Your task to perform on an android device: change notifications settings Image 0: 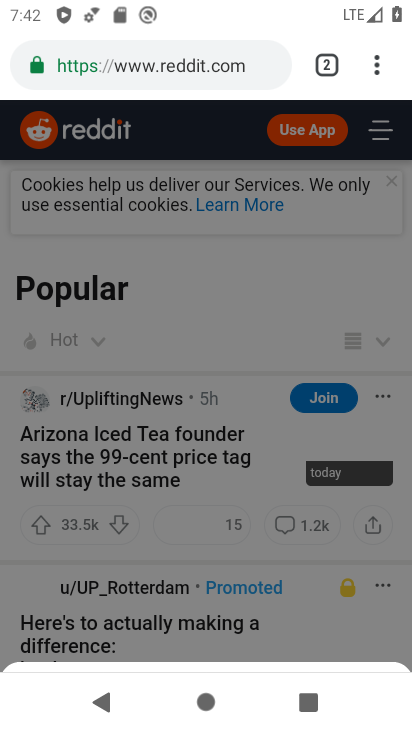
Step 0: press home button
Your task to perform on an android device: change notifications settings Image 1: 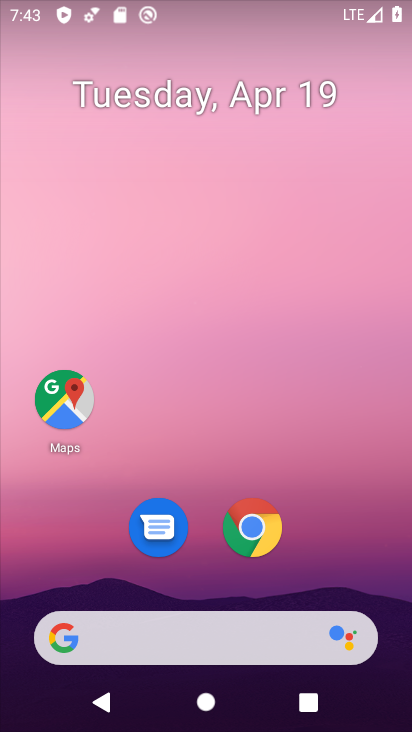
Step 1: drag from (343, 502) to (344, 70)
Your task to perform on an android device: change notifications settings Image 2: 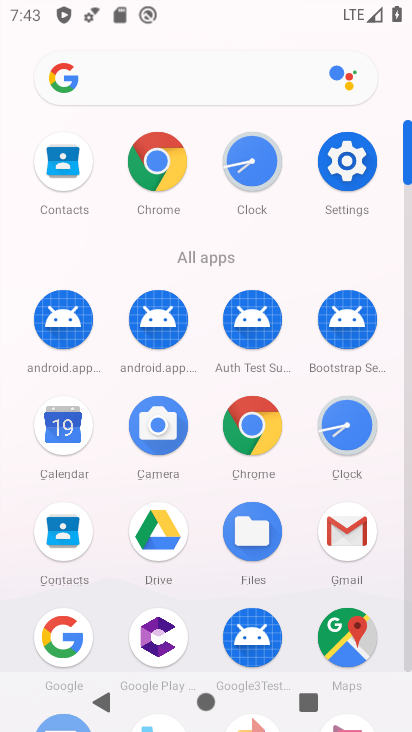
Step 2: click (346, 168)
Your task to perform on an android device: change notifications settings Image 3: 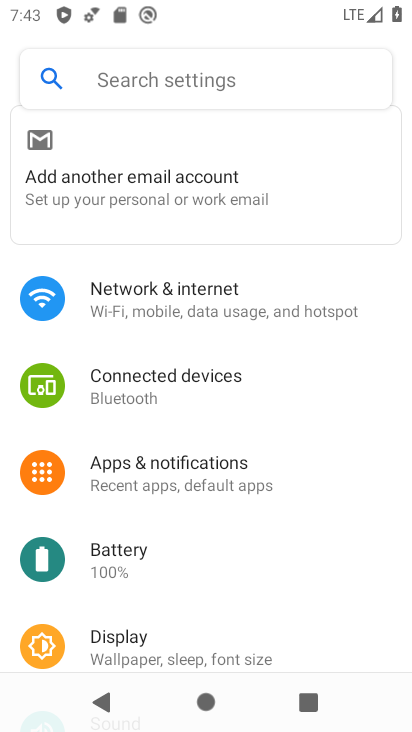
Step 3: click (197, 470)
Your task to perform on an android device: change notifications settings Image 4: 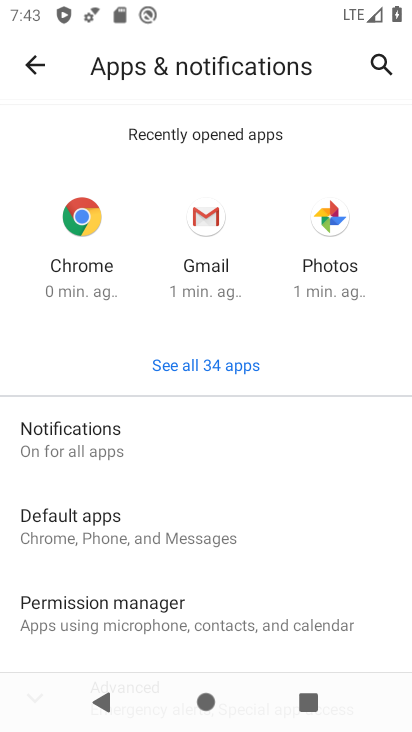
Step 4: click (122, 449)
Your task to perform on an android device: change notifications settings Image 5: 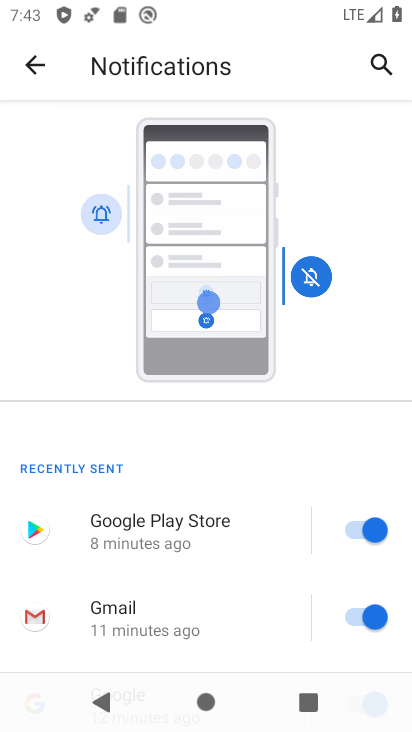
Step 5: click (355, 528)
Your task to perform on an android device: change notifications settings Image 6: 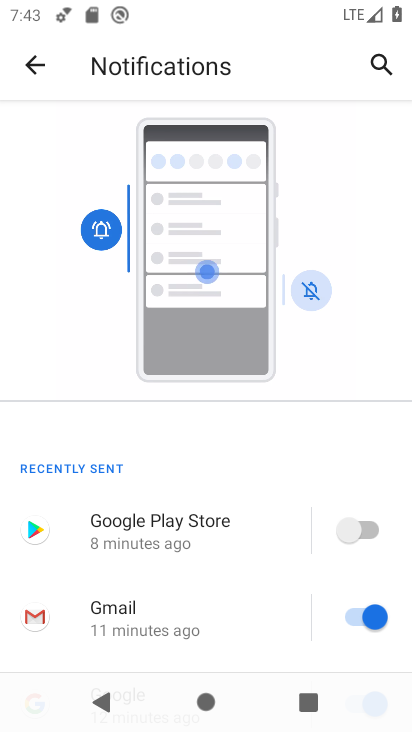
Step 6: click (348, 616)
Your task to perform on an android device: change notifications settings Image 7: 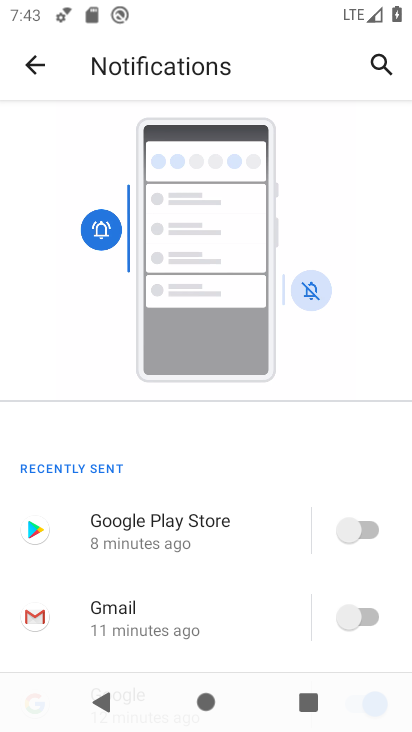
Step 7: task complete